Your task to perform on an android device: open app "Google Maps" (install if not already installed) Image 0: 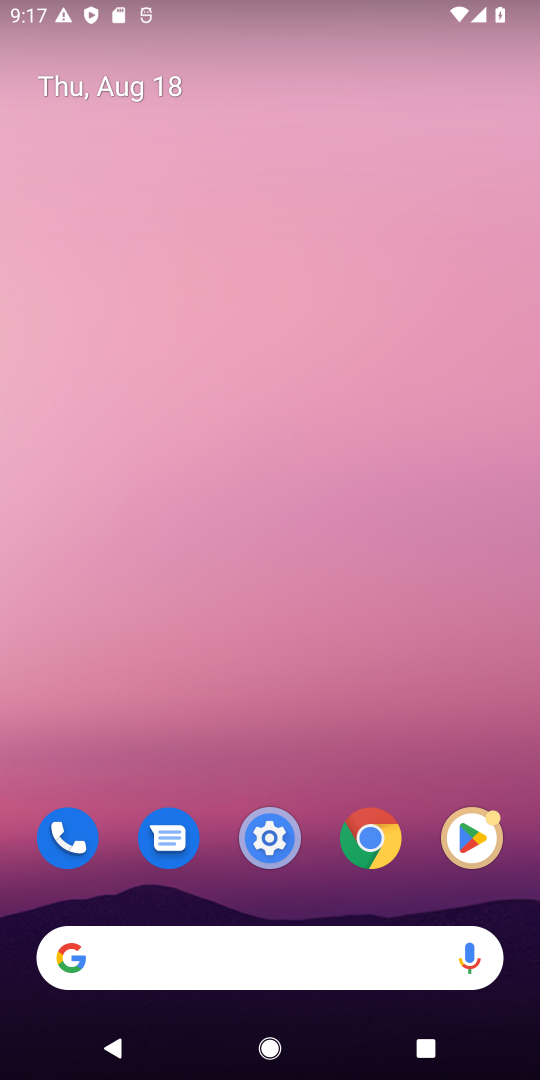
Step 0: drag from (330, 921) to (445, 162)
Your task to perform on an android device: open app "Google Maps" (install if not already installed) Image 1: 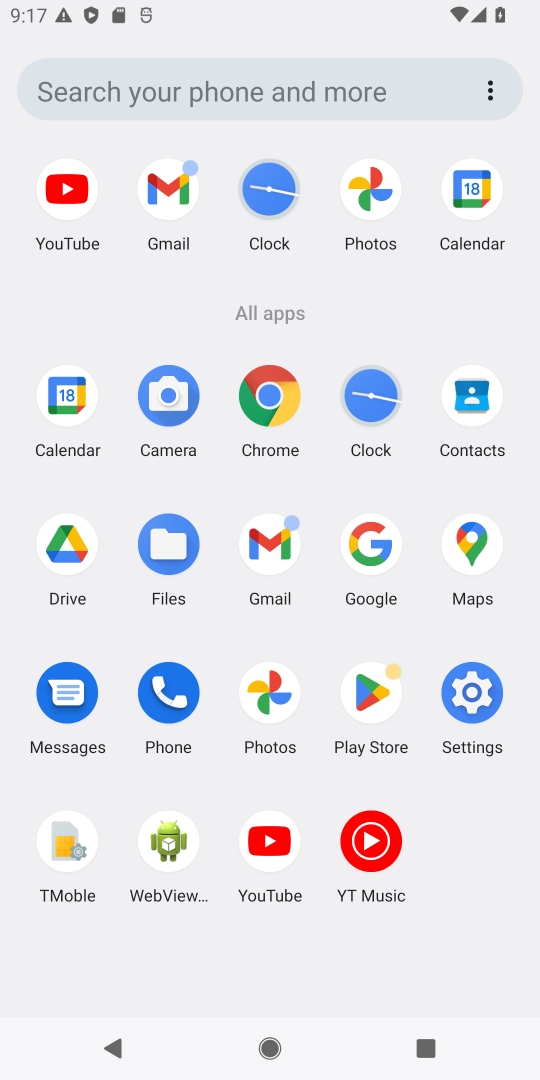
Step 1: click (374, 687)
Your task to perform on an android device: open app "Google Maps" (install if not already installed) Image 2: 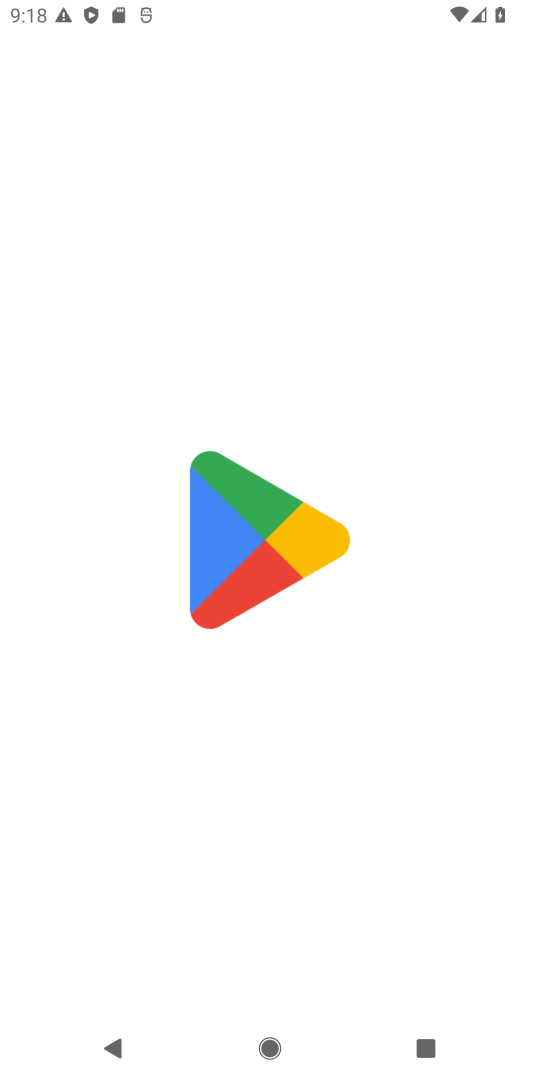
Step 2: task complete